Your task to perform on an android device: turn off location history Image 0: 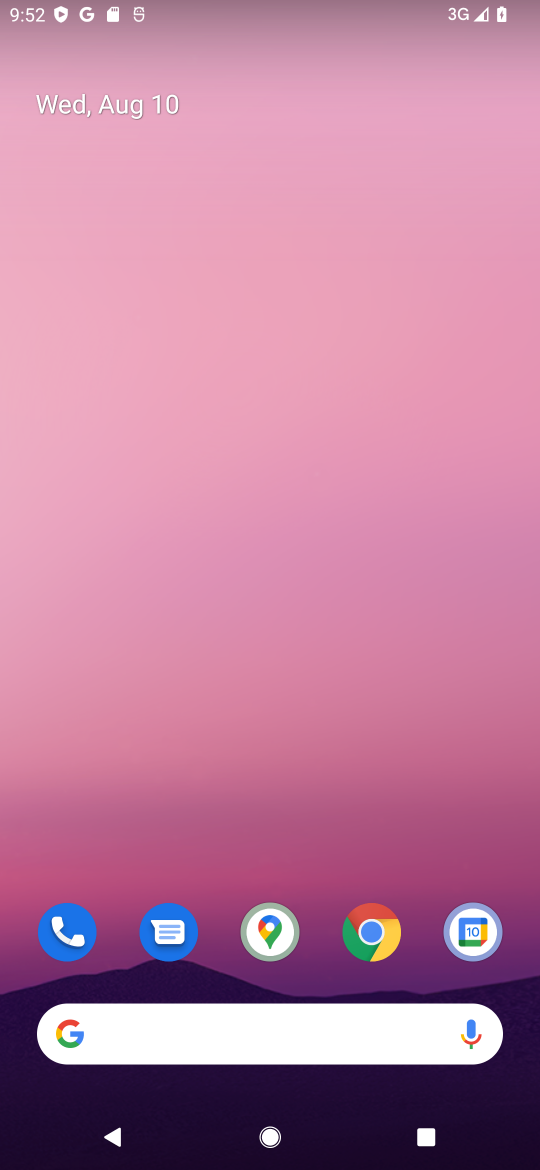
Step 0: drag from (310, 830) to (284, 202)
Your task to perform on an android device: turn off location history Image 1: 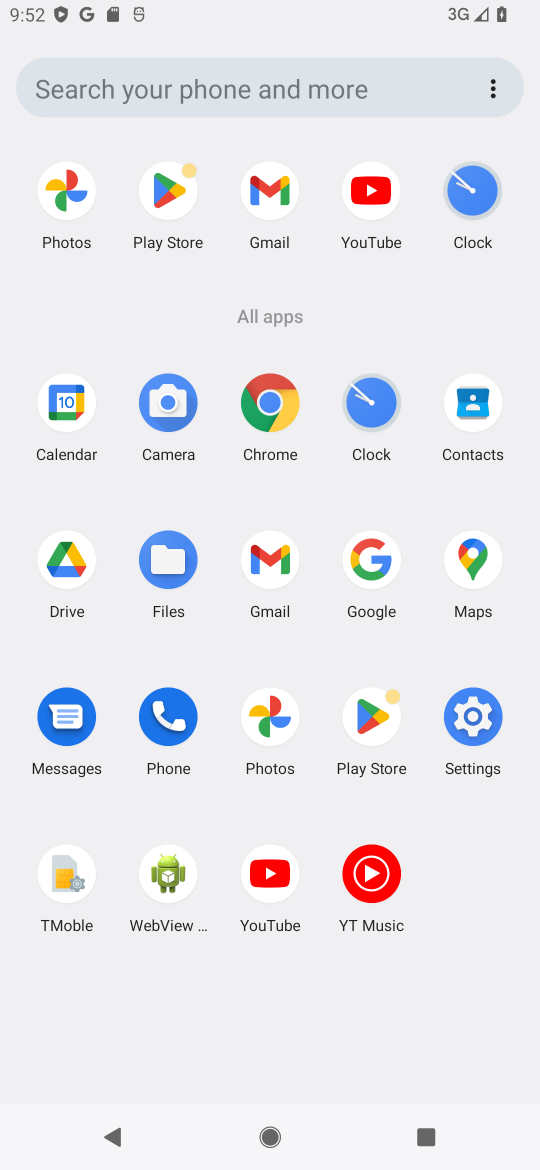
Step 1: click (472, 714)
Your task to perform on an android device: turn off location history Image 2: 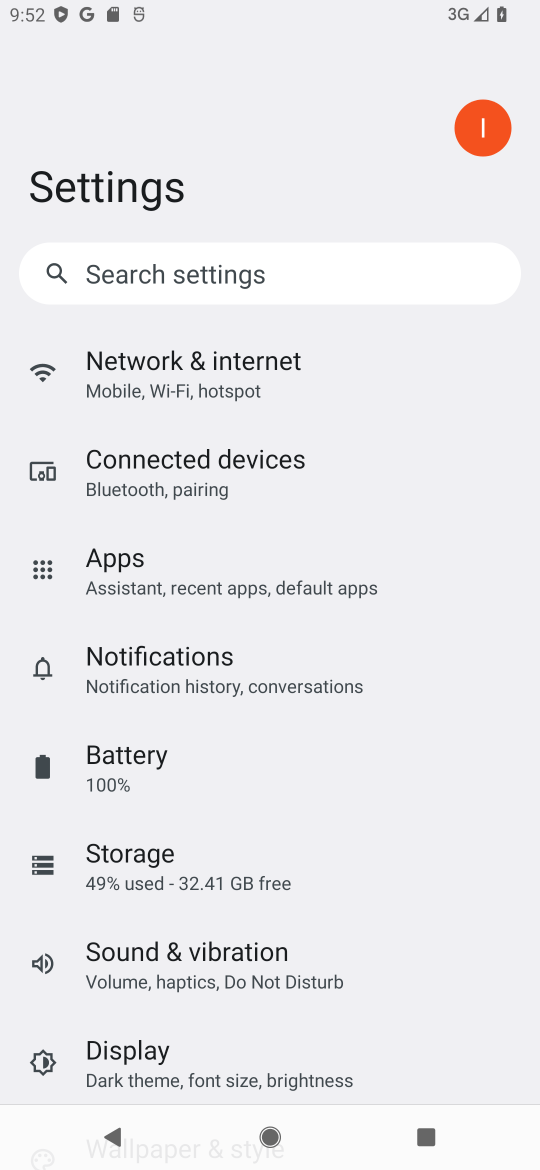
Step 2: drag from (278, 997) to (229, 380)
Your task to perform on an android device: turn off location history Image 3: 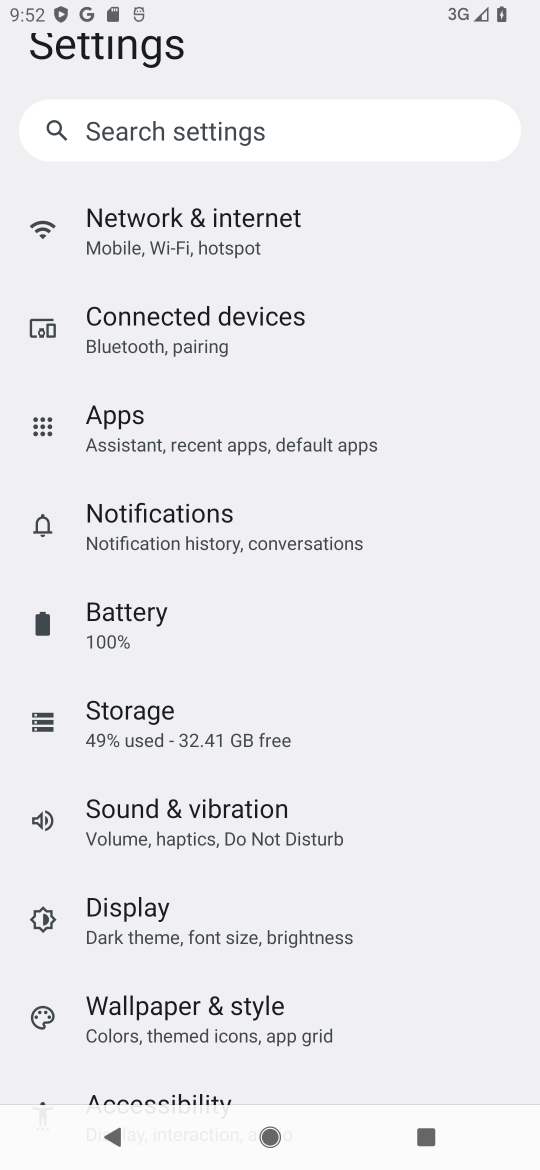
Step 3: drag from (308, 935) to (245, 572)
Your task to perform on an android device: turn off location history Image 4: 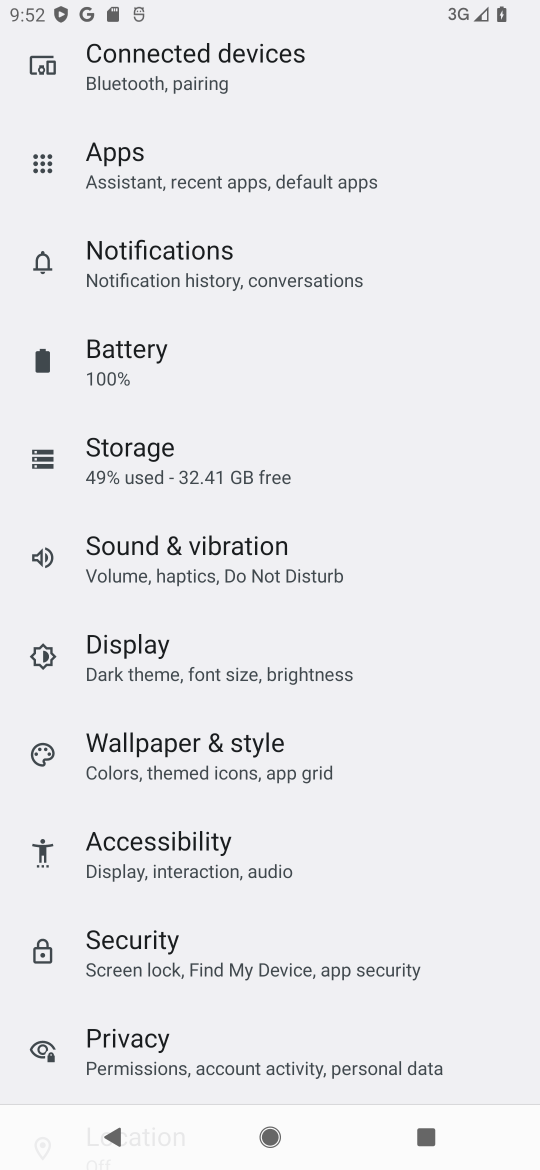
Step 4: drag from (302, 908) to (307, 522)
Your task to perform on an android device: turn off location history Image 5: 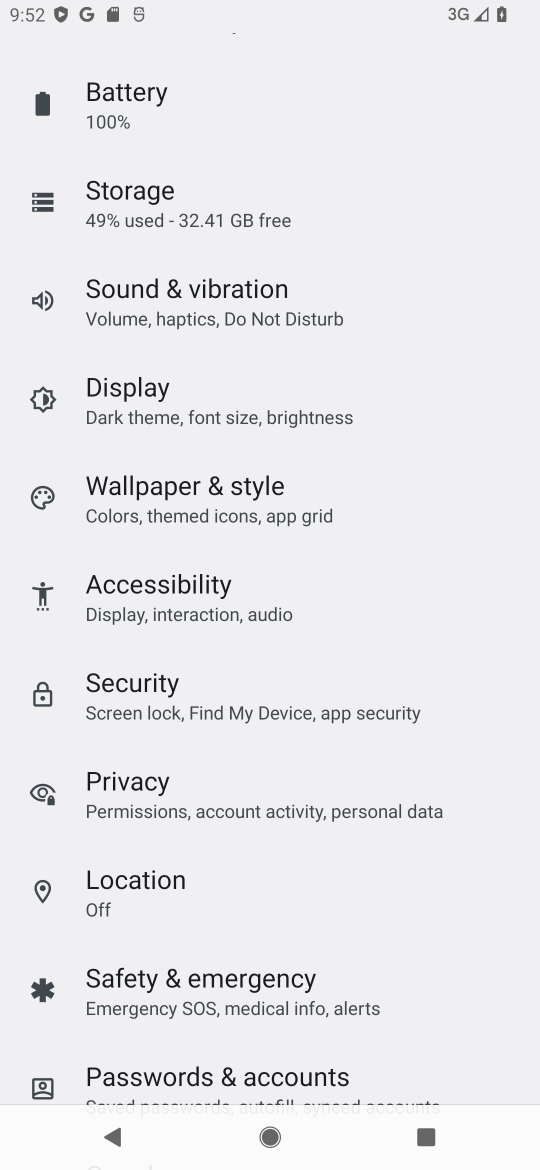
Step 5: click (134, 887)
Your task to perform on an android device: turn off location history Image 6: 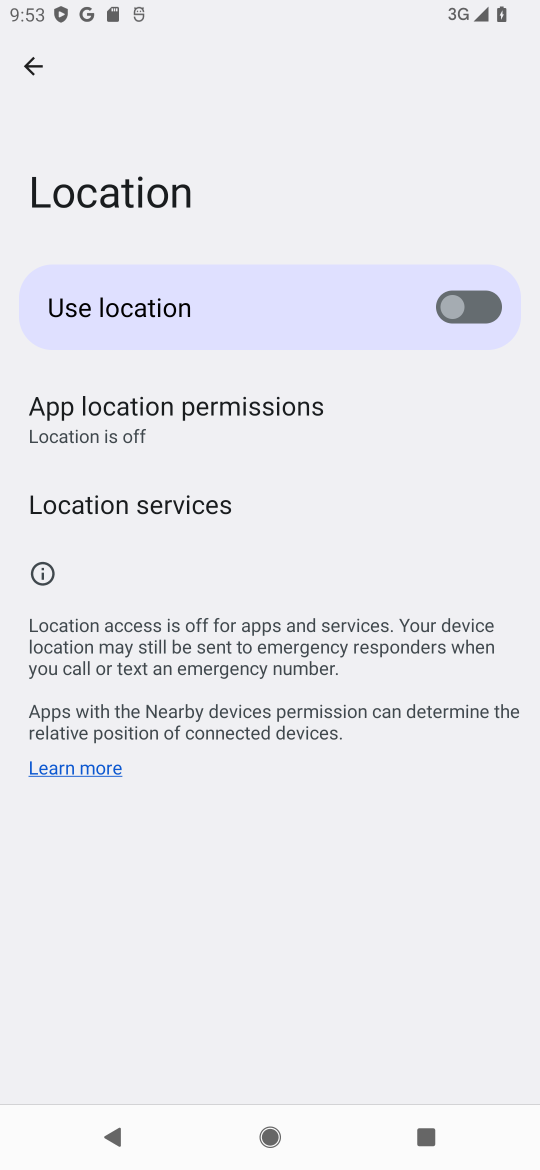
Step 6: click (150, 508)
Your task to perform on an android device: turn off location history Image 7: 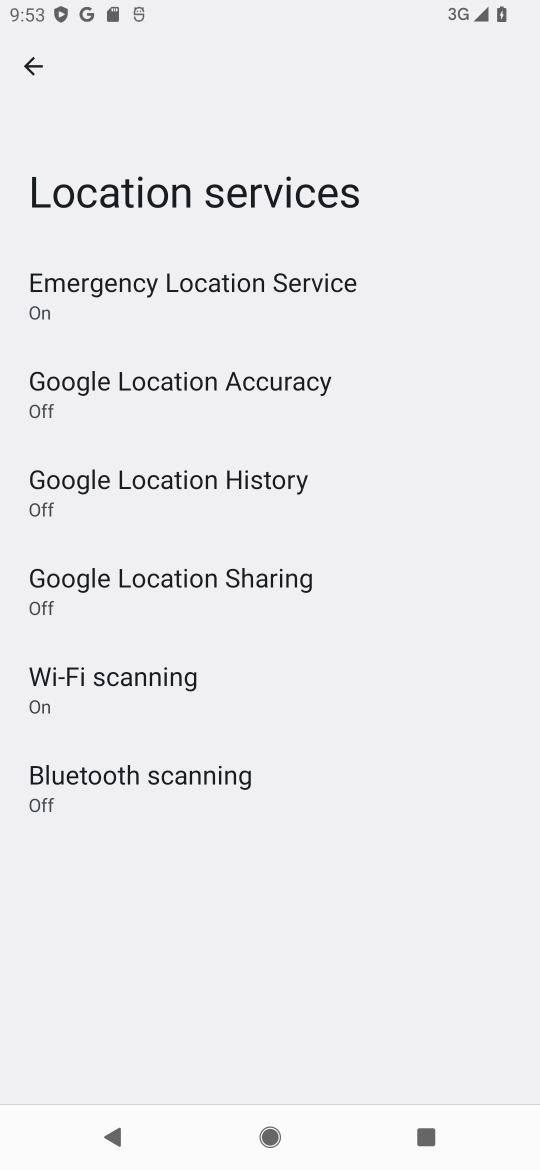
Step 7: click (184, 461)
Your task to perform on an android device: turn off location history Image 8: 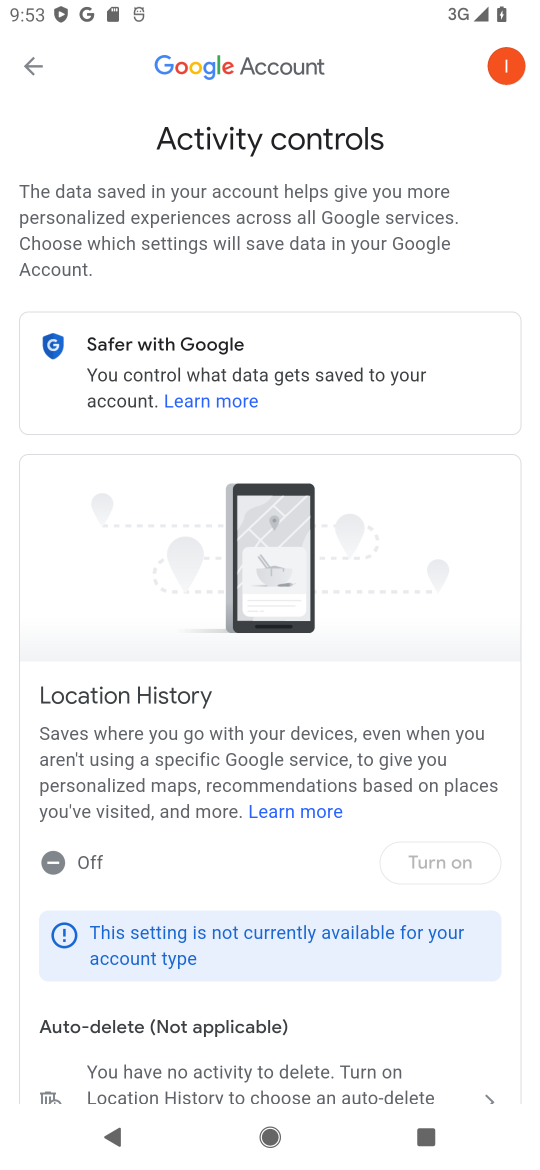
Step 8: click (427, 870)
Your task to perform on an android device: turn off location history Image 9: 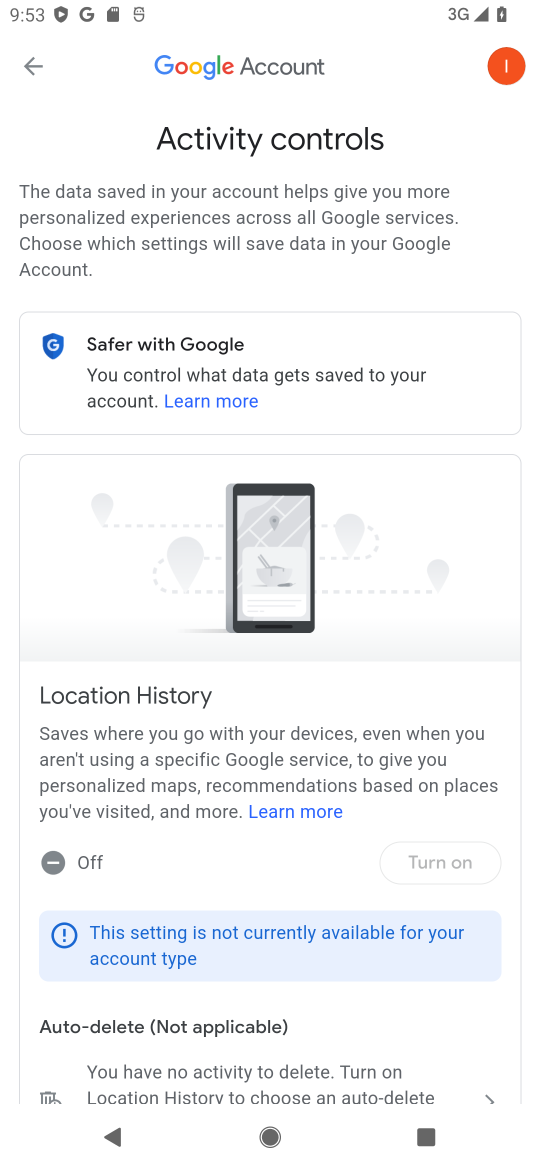
Step 9: task complete